Your task to perform on an android device: turn on sleep mode Image 0: 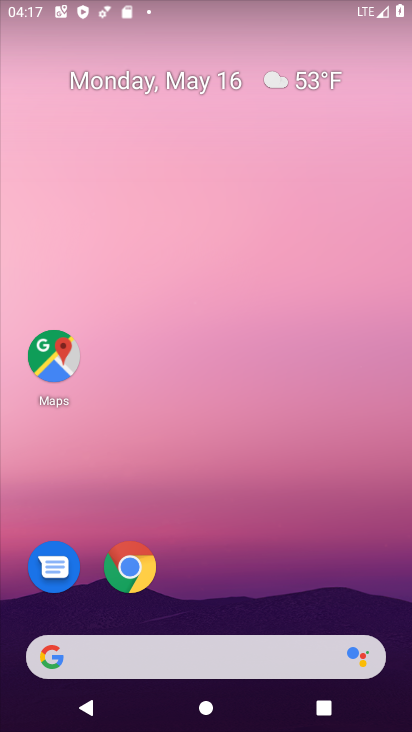
Step 0: drag from (294, 667) to (285, 42)
Your task to perform on an android device: turn on sleep mode Image 1: 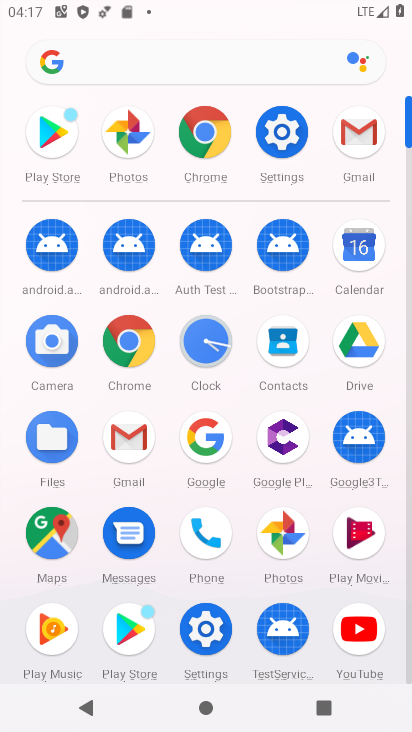
Step 1: click (283, 120)
Your task to perform on an android device: turn on sleep mode Image 2: 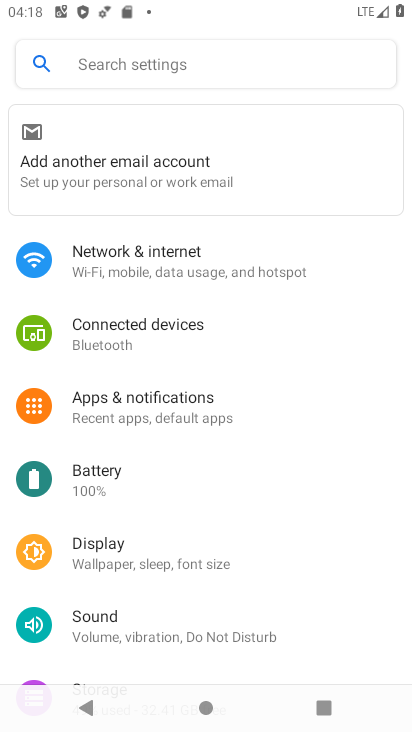
Step 2: click (150, 633)
Your task to perform on an android device: turn on sleep mode Image 3: 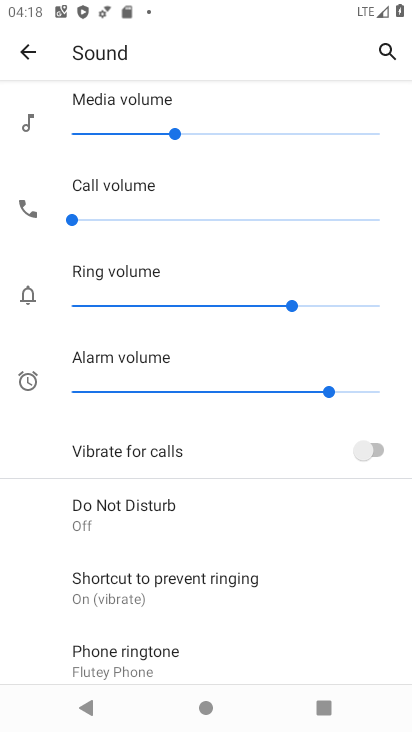
Step 3: task complete